Your task to perform on an android device: all mails in gmail Image 0: 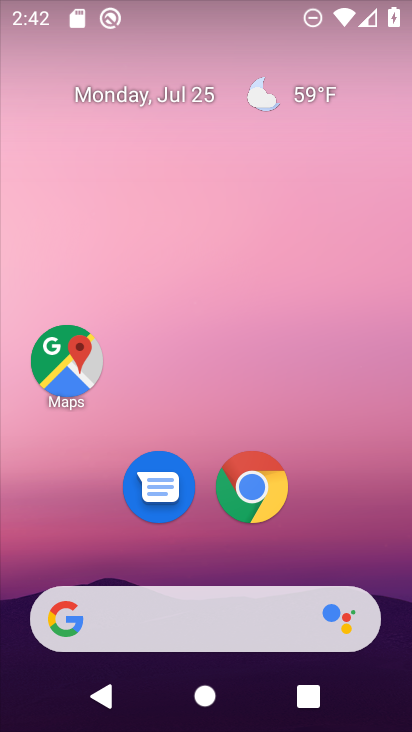
Step 0: drag from (225, 557) to (387, 40)
Your task to perform on an android device: all mails in gmail Image 1: 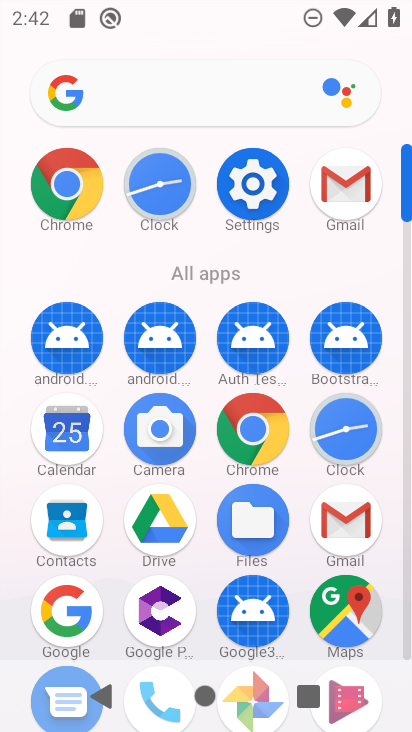
Step 1: click (352, 178)
Your task to perform on an android device: all mails in gmail Image 2: 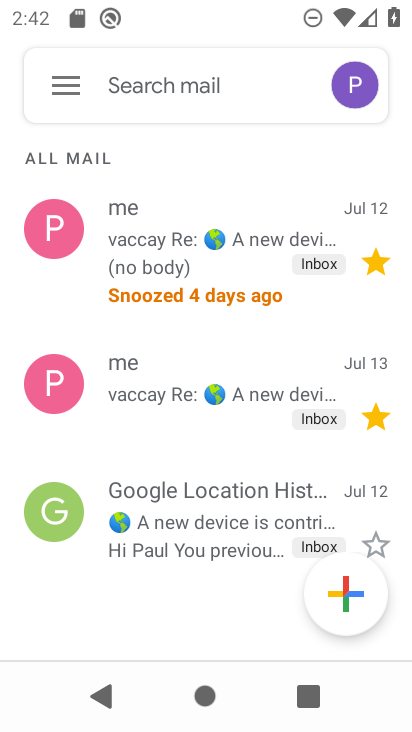
Step 2: click (68, 74)
Your task to perform on an android device: all mails in gmail Image 3: 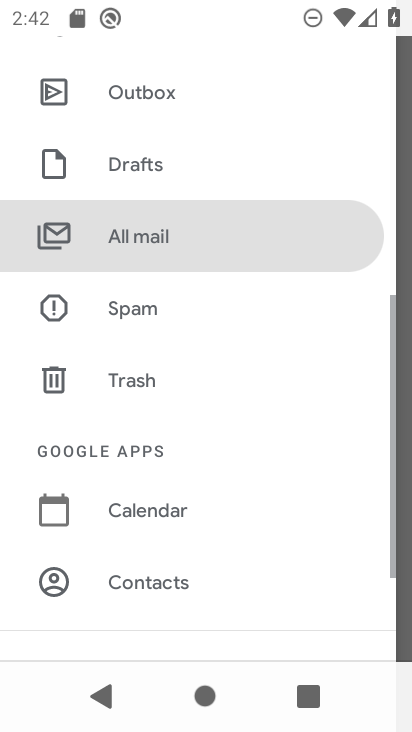
Step 3: click (175, 243)
Your task to perform on an android device: all mails in gmail Image 4: 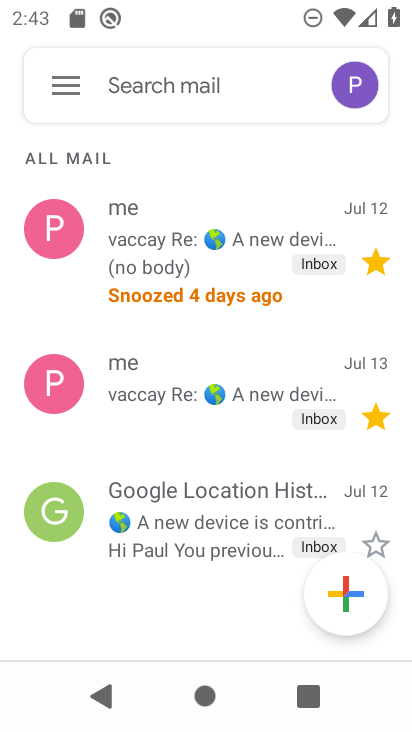
Step 4: task complete